Your task to perform on an android device: Turn on the flashlight Image 0: 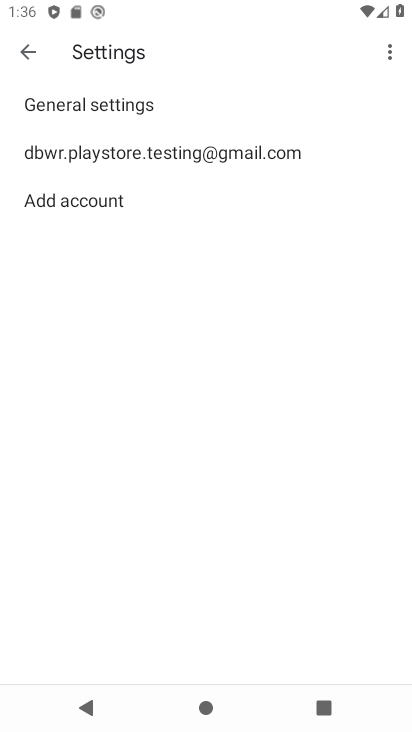
Step 0: press home button
Your task to perform on an android device: Turn on the flashlight Image 1: 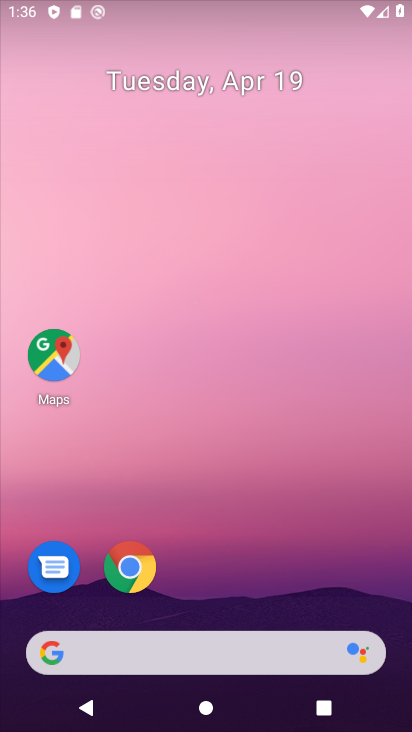
Step 1: drag from (240, 555) to (231, 184)
Your task to perform on an android device: Turn on the flashlight Image 2: 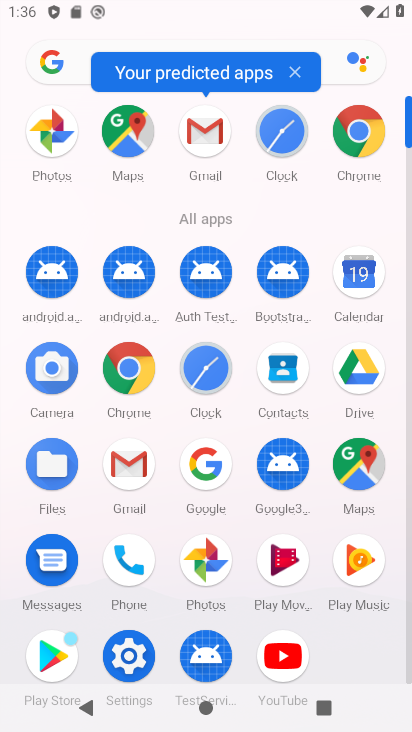
Step 2: click (132, 645)
Your task to perform on an android device: Turn on the flashlight Image 3: 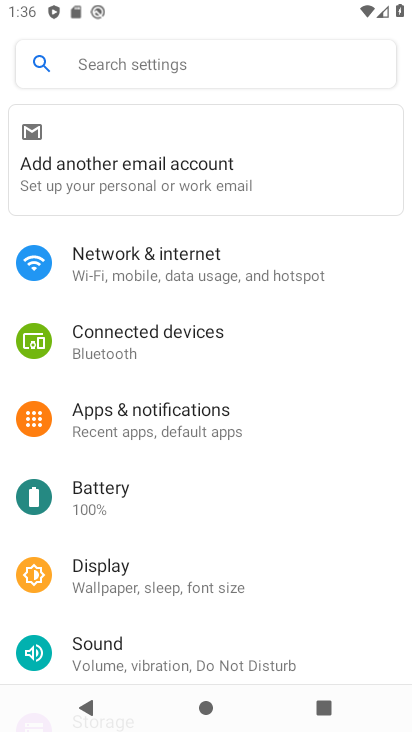
Step 3: click (167, 55)
Your task to perform on an android device: Turn on the flashlight Image 4: 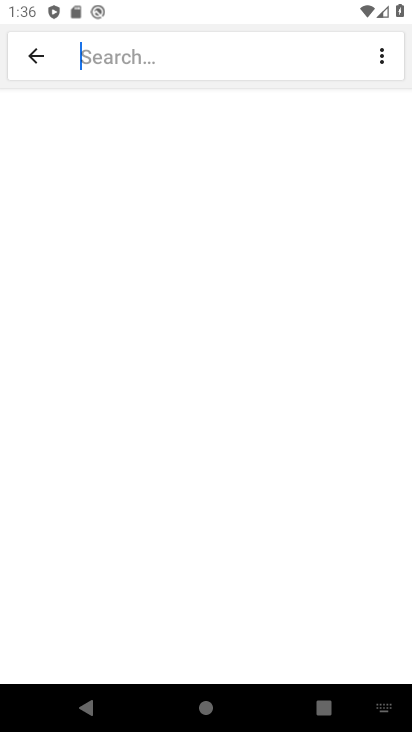
Step 4: type "flash"
Your task to perform on an android device: Turn on the flashlight Image 5: 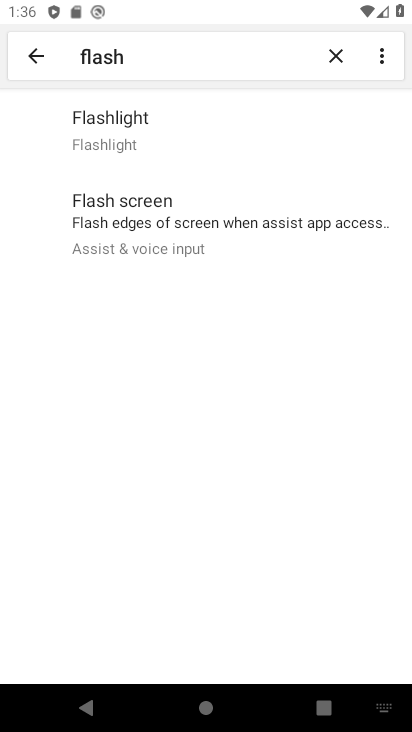
Step 5: click (118, 123)
Your task to perform on an android device: Turn on the flashlight Image 6: 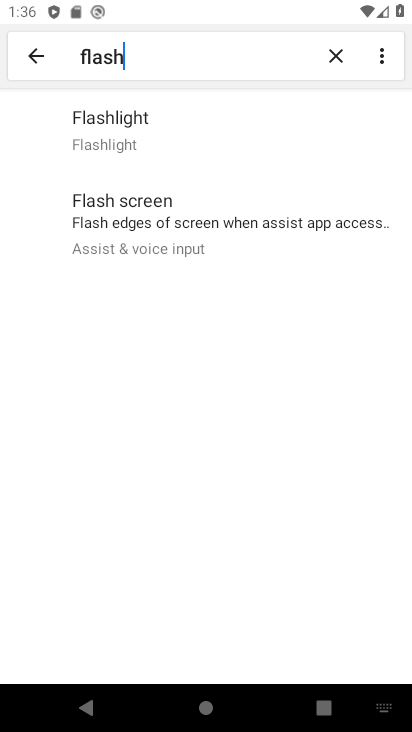
Step 6: task complete